Your task to perform on an android device: Go to Amazon Image 0: 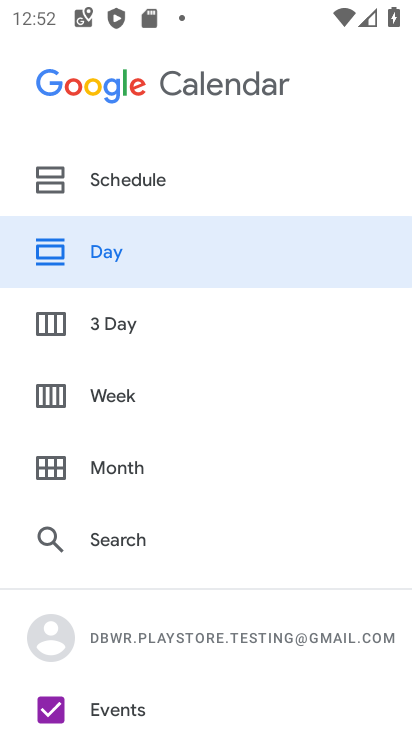
Step 0: press home button
Your task to perform on an android device: Go to Amazon Image 1: 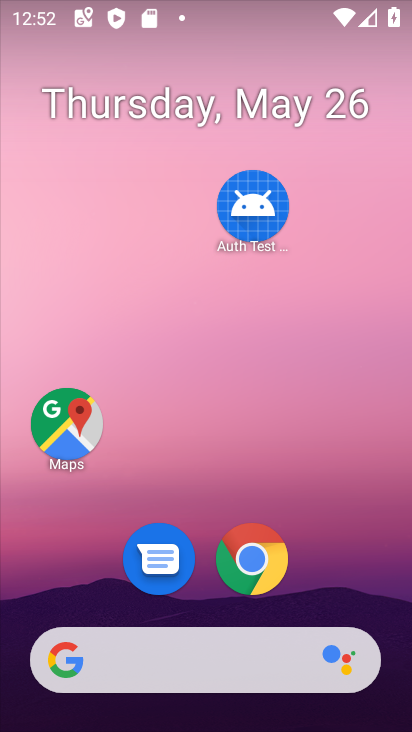
Step 1: click (266, 571)
Your task to perform on an android device: Go to Amazon Image 2: 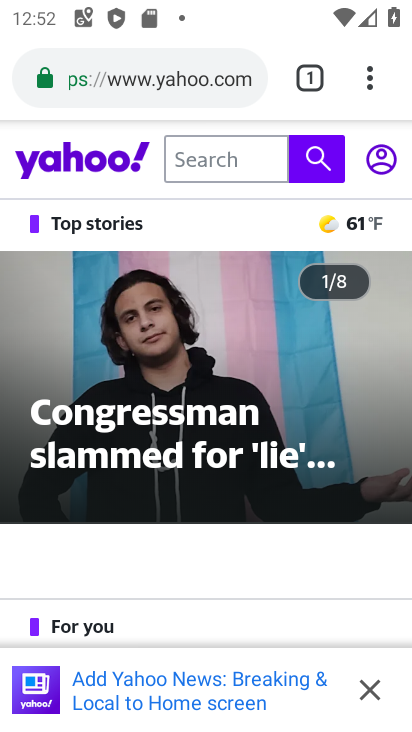
Step 2: click (179, 72)
Your task to perform on an android device: Go to Amazon Image 3: 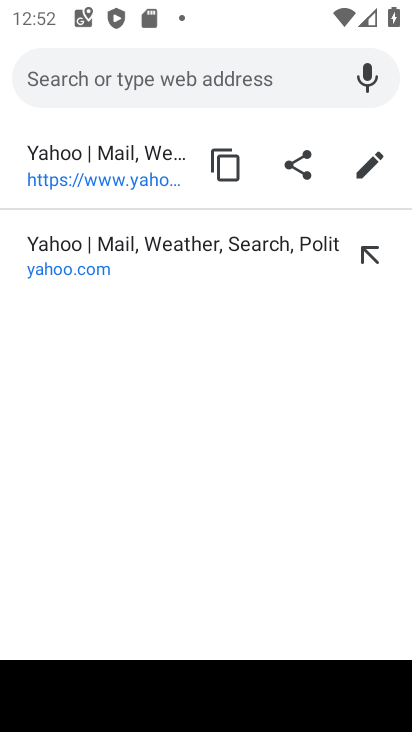
Step 3: type "amazon"
Your task to perform on an android device: Go to Amazon Image 4: 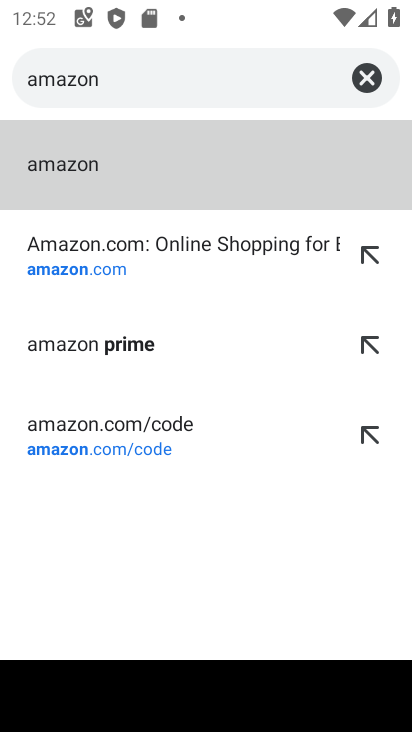
Step 4: click (89, 242)
Your task to perform on an android device: Go to Amazon Image 5: 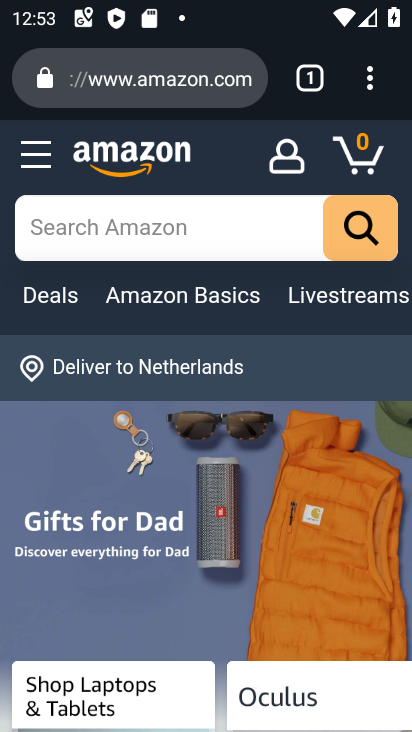
Step 5: task complete